Your task to perform on an android device: Go to Google Image 0: 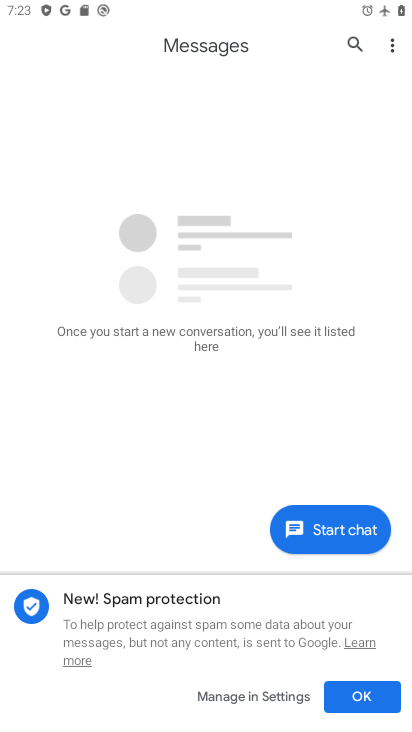
Step 0: press home button
Your task to perform on an android device: Go to Google Image 1: 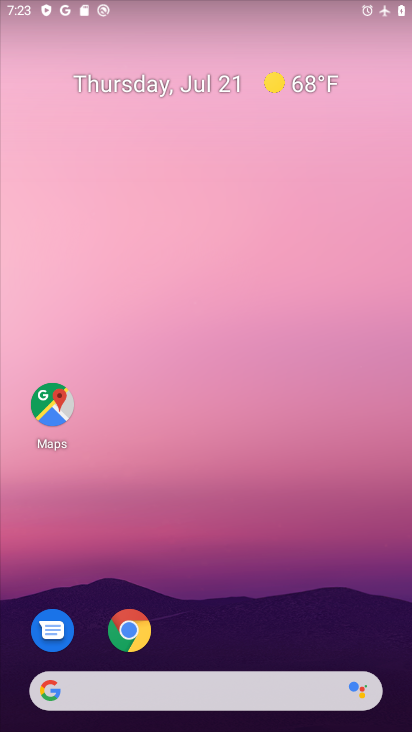
Step 1: drag from (363, 641) to (318, 13)
Your task to perform on an android device: Go to Google Image 2: 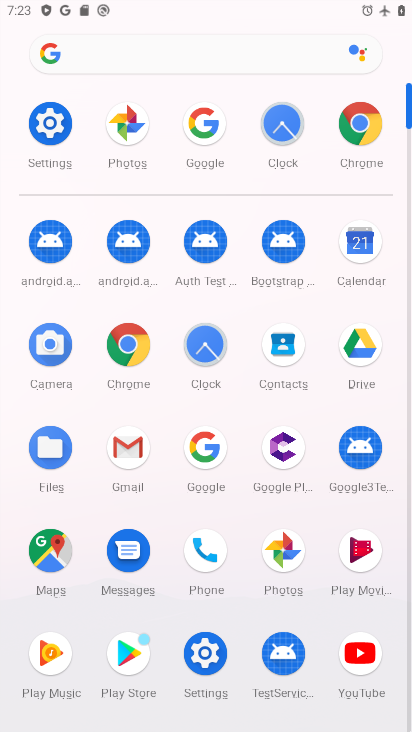
Step 2: click (209, 473)
Your task to perform on an android device: Go to Google Image 3: 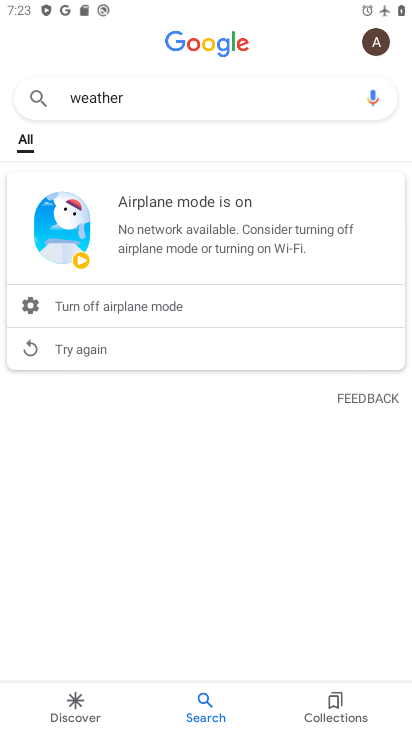
Step 3: task complete